Your task to perform on an android device: Open Android settings Image 0: 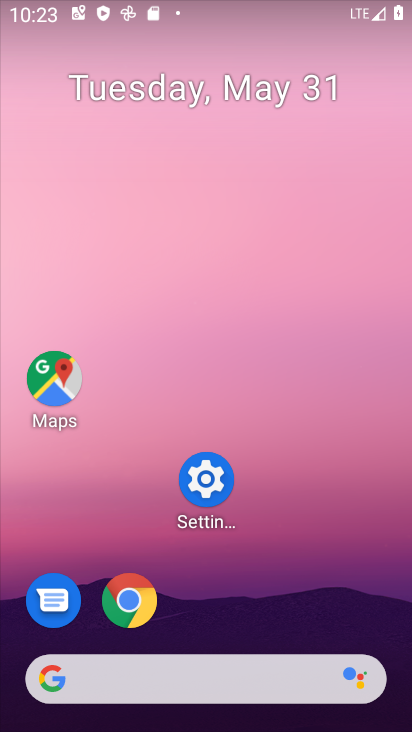
Step 0: press home button
Your task to perform on an android device: Open Android settings Image 1: 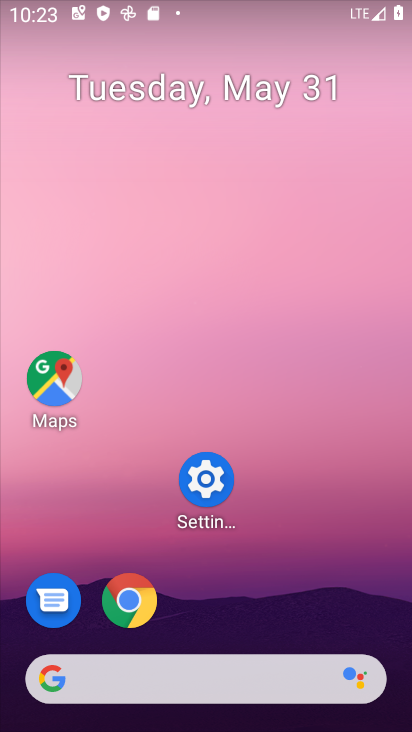
Step 1: click (213, 497)
Your task to perform on an android device: Open Android settings Image 2: 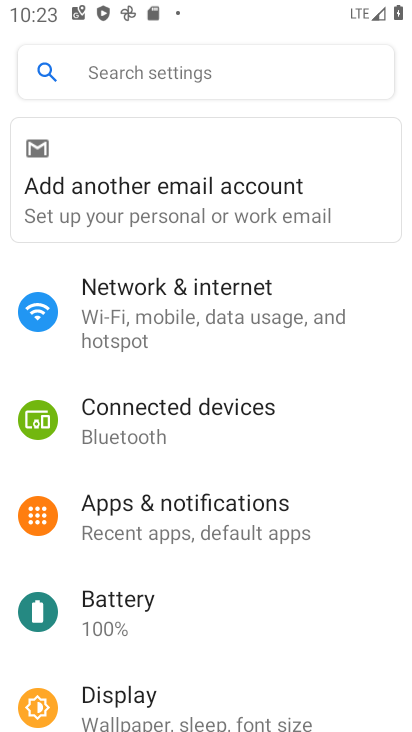
Step 2: click (137, 76)
Your task to perform on an android device: Open Android settings Image 3: 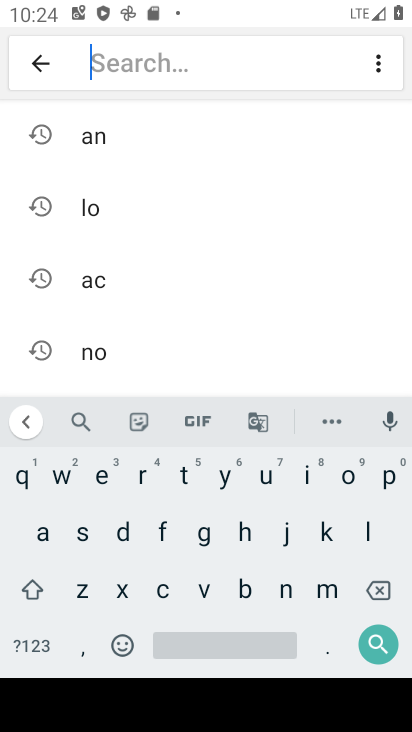
Step 3: click (32, 527)
Your task to perform on an android device: Open Android settings Image 4: 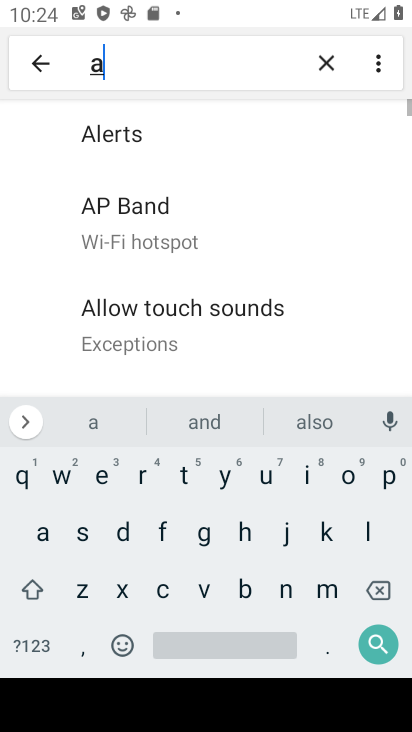
Step 4: click (282, 585)
Your task to perform on an android device: Open Android settings Image 5: 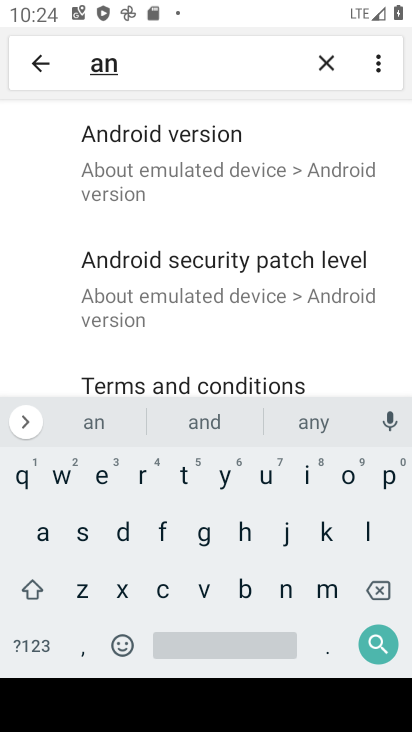
Step 5: click (221, 142)
Your task to perform on an android device: Open Android settings Image 6: 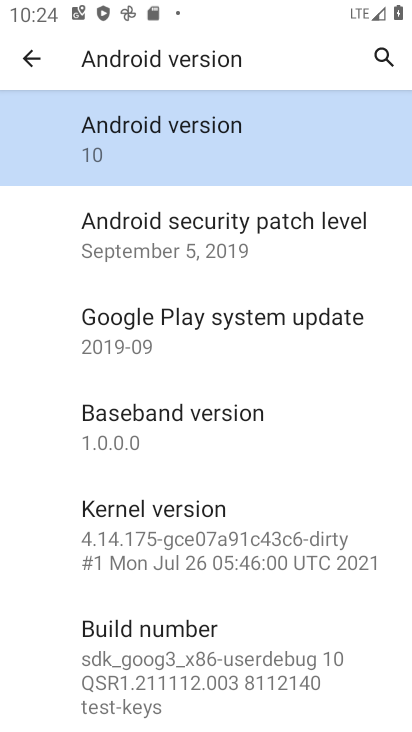
Step 6: click (181, 139)
Your task to perform on an android device: Open Android settings Image 7: 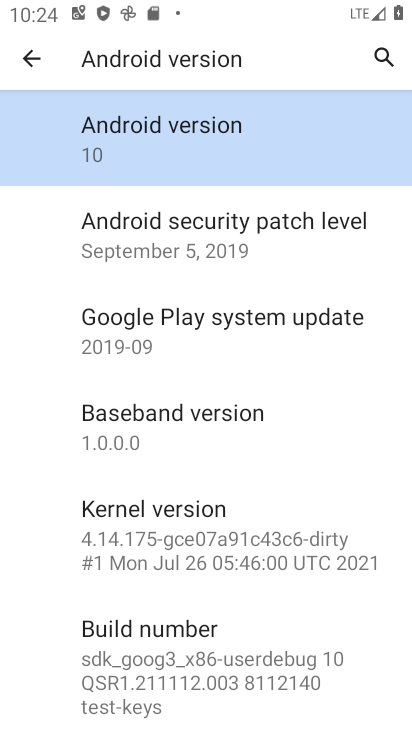
Step 7: task complete